Your task to perform on an android device: Open Chrome and go to the settings page Image 0: 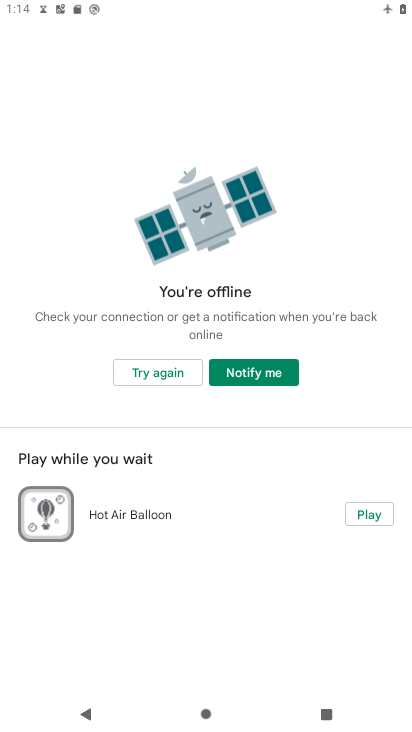
Step 0: press home button
Your task to perform on an android device: Open Chrome and go to the settings page Image 1: 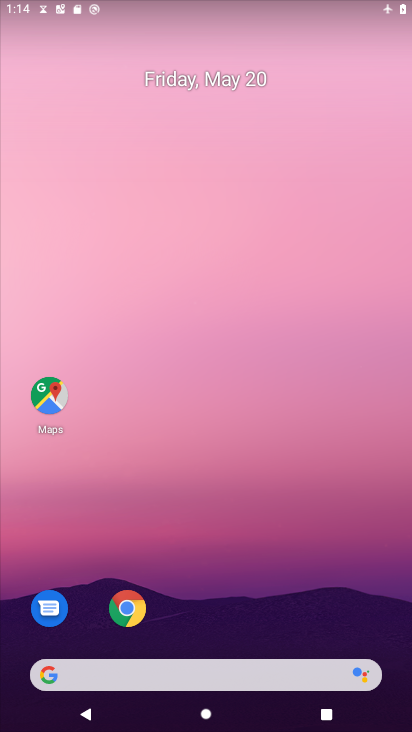
Step 1: click (132, 617)
Your task to perform on an android device: Open Chrome and go to the settings page Image 2: 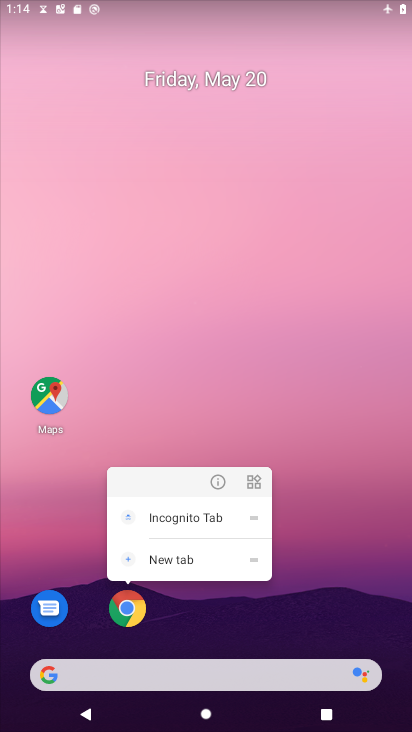
Step 2: click (134, 614)
Your task to perform on an android device: Open Chrome and go to the settings page Image 3: 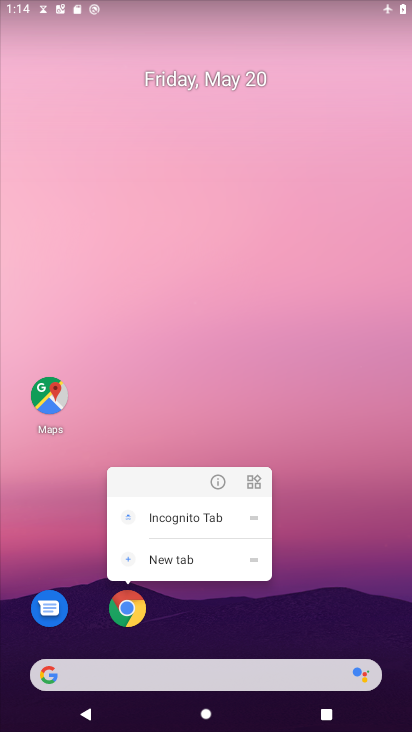
Step 3: click (134, 614)
Your task to perform on an android device: Open Chrome and go to the settings page Image 4: 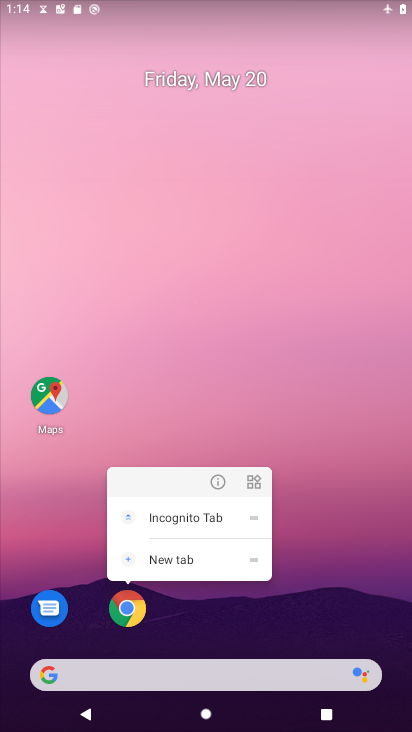
Step 4: click (134, 614)
Your task to perform on an android device: Open Chrome and go to the settings page Image 5: 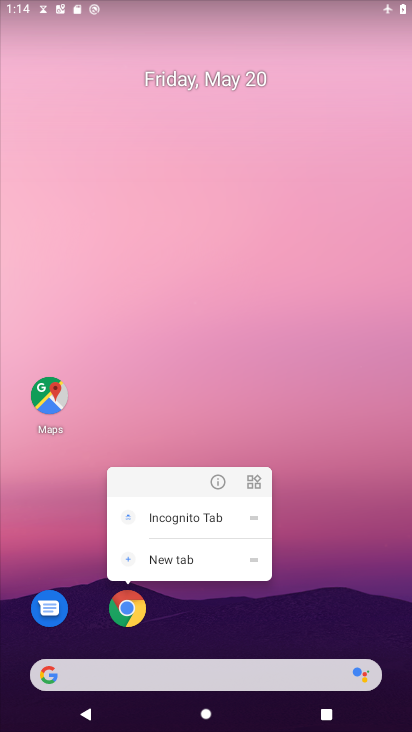
Step 5: click (122, 617)
Your task to perform on an android device: Open Chrome and go to the settings page Image 6: 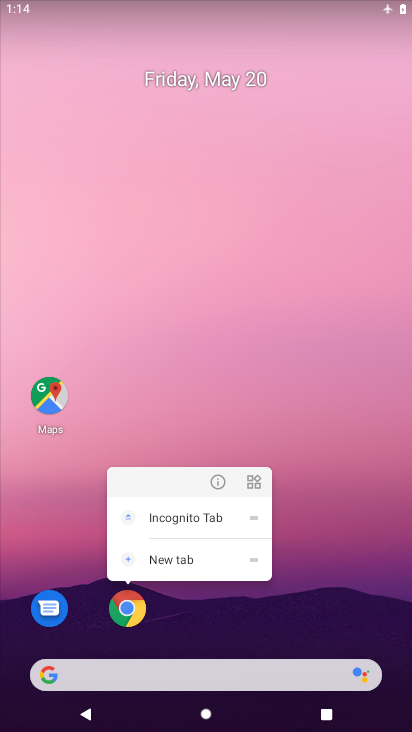
Step 6: click (122, 617)
Your task to perform on an android device: Open Chrome and go to the settings page Image 7: 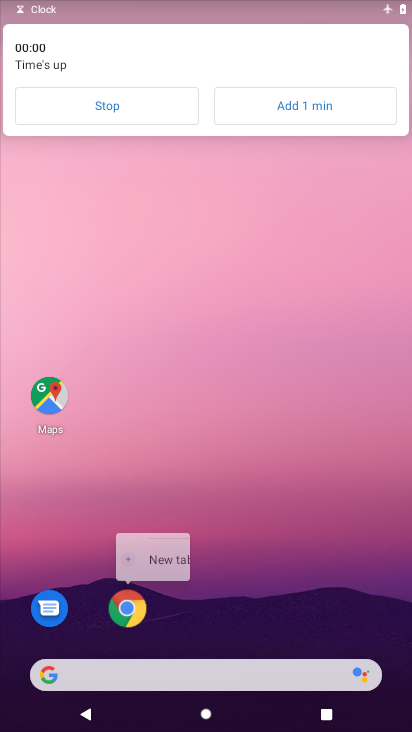
Step 7: click (122, 617)
Your task to perform on an android device: Open Chrome and go to the settings page Image 8: 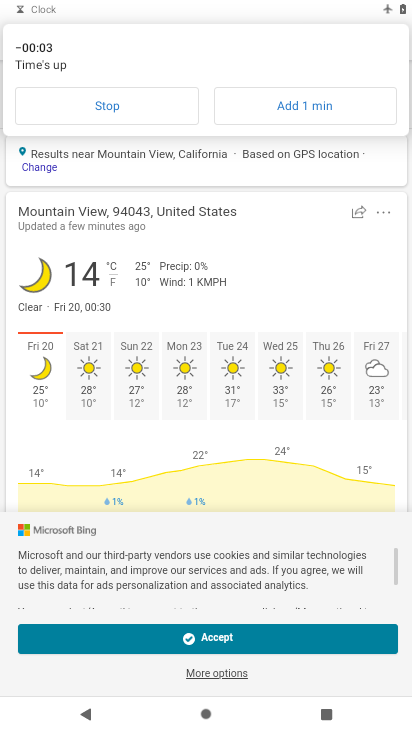
Step 8: click (142, 102)
Your task to perform on an android device: Open Chrome and go to the settings page Image 9: 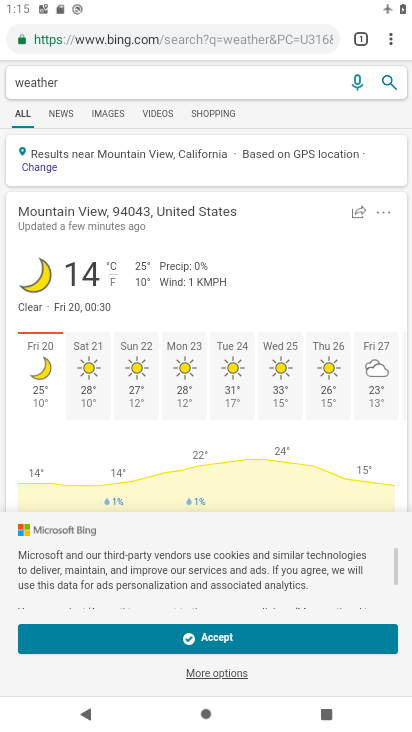
Step 9: task complete